Your task to perform on an android device: Open privacy settings Image 0: 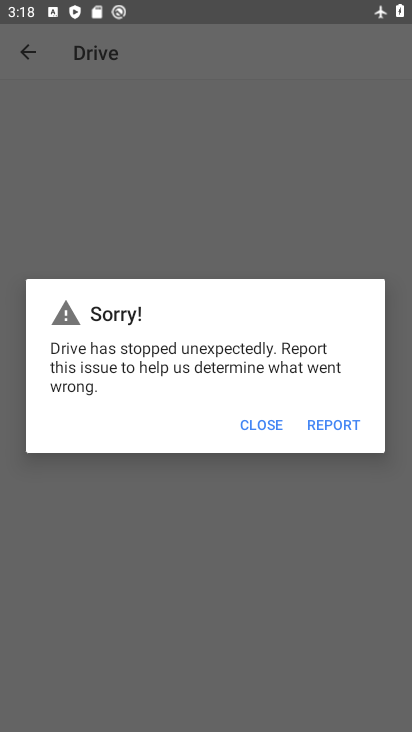
Step 0: press home button
Your task to perform on an android device: Open privacy settings Image 1: 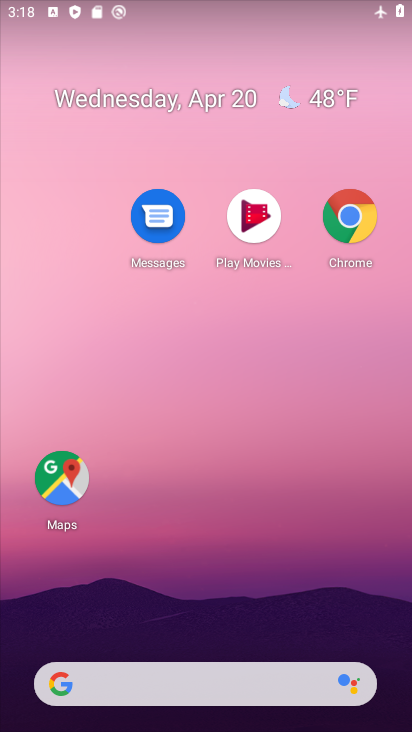
Step 1: drag from (254, 559) to (326, 140)
Your task to perform on an android device: Open privacy settings Image 2: 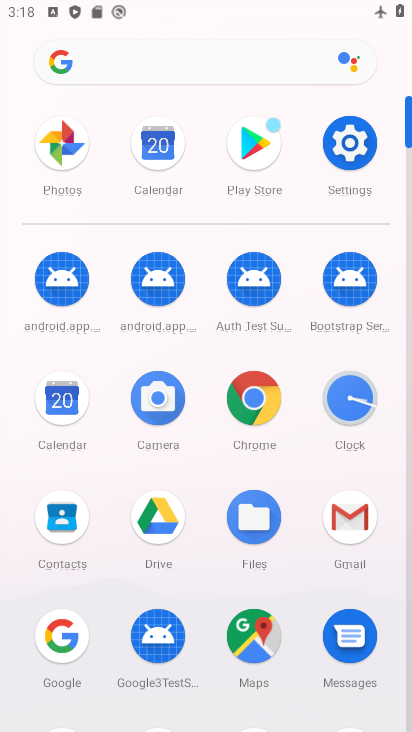
Step 2: click (359, 154)
Your task to perform on an android device: Open privacy settings Image 3: 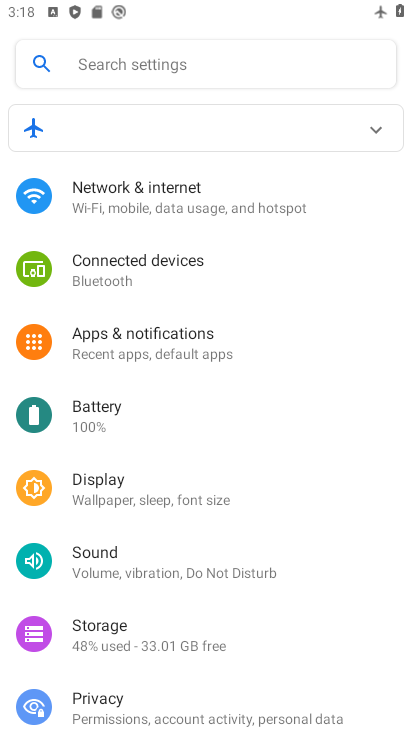
Step 3: click (152, 708)
Your task to perform on an android device: Open privacy settings Image 4: 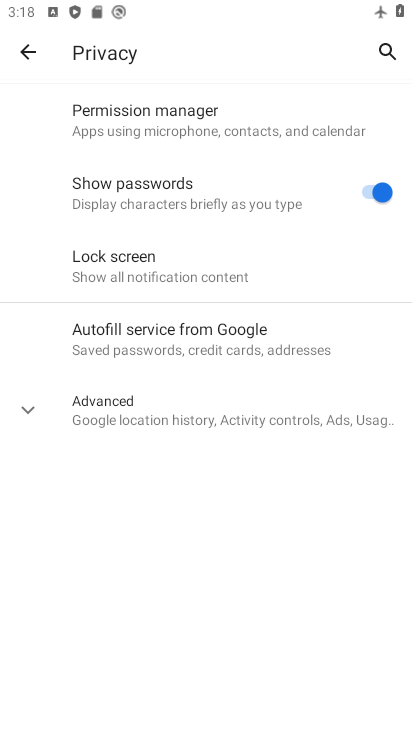
Step 4: task complete